Your task to perform on an android device: Open accessibility settings Image 0: 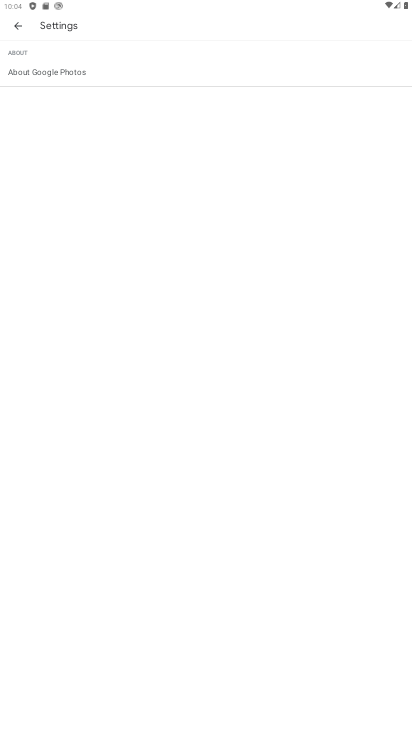
Step 0: press home button
Your task to perform on an android device: Open accessibility settings Image 1: 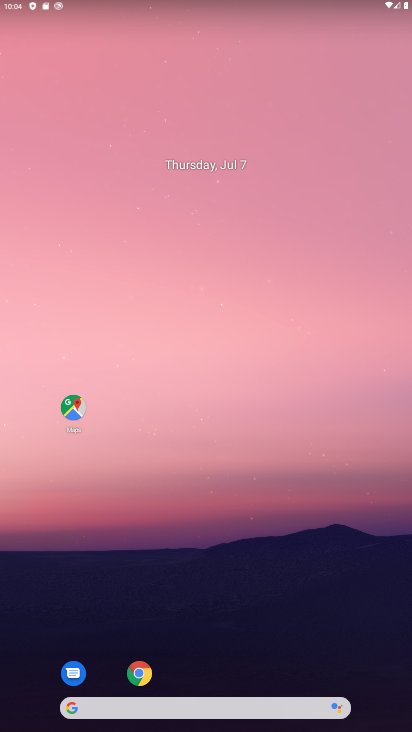
Step 1: drag from (242, 656) to (301, 4)
Your task to perform on an android device: Open accessibility settings Image 2: 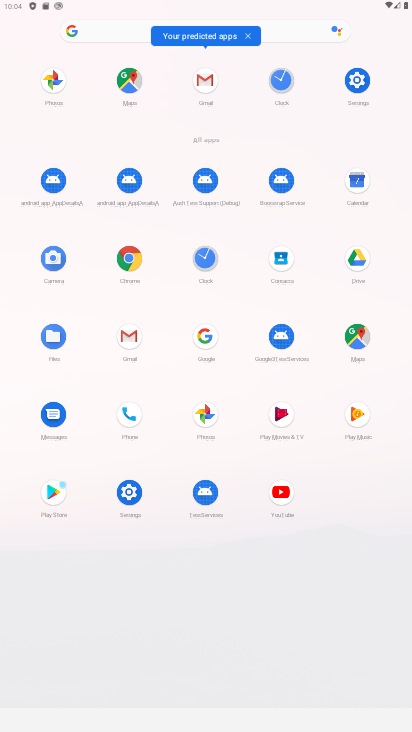
Step 2: click (135, 502)
Your task to perform on an android device: Open accessibility settings Image 3: 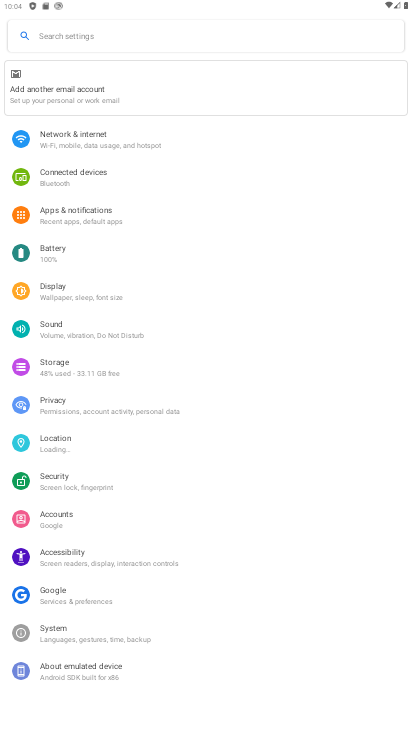
Step 3: click (99, 559)
Your task to perform on an android device: Open accessibility settings Image 4: 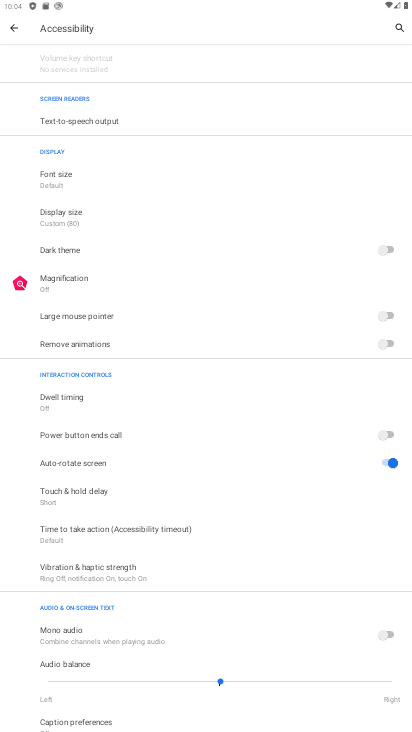
Step 4: task complete